Your task to perform on an android device: Go to wifi settings Image 0: 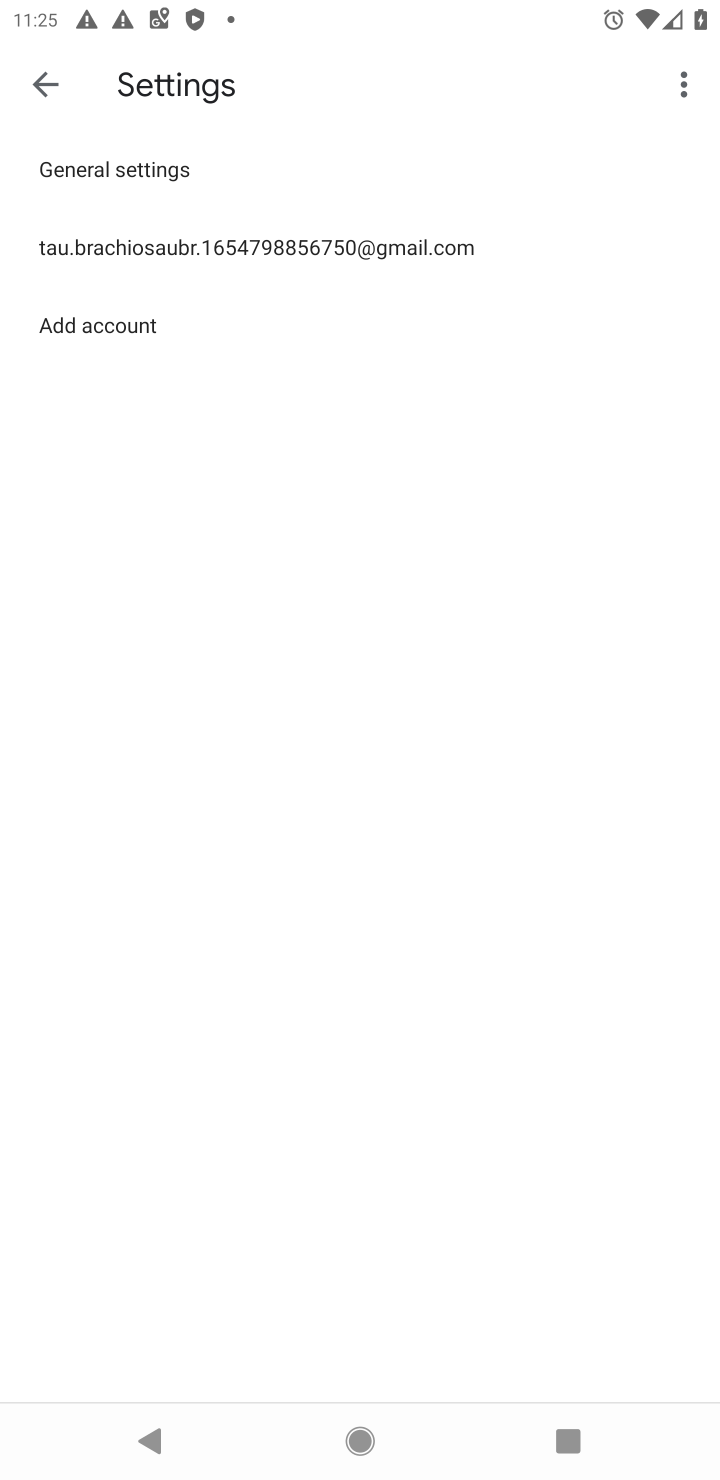
Step 0: press home button
Your task to perform on an android device: Go to wifi settings Image 1: 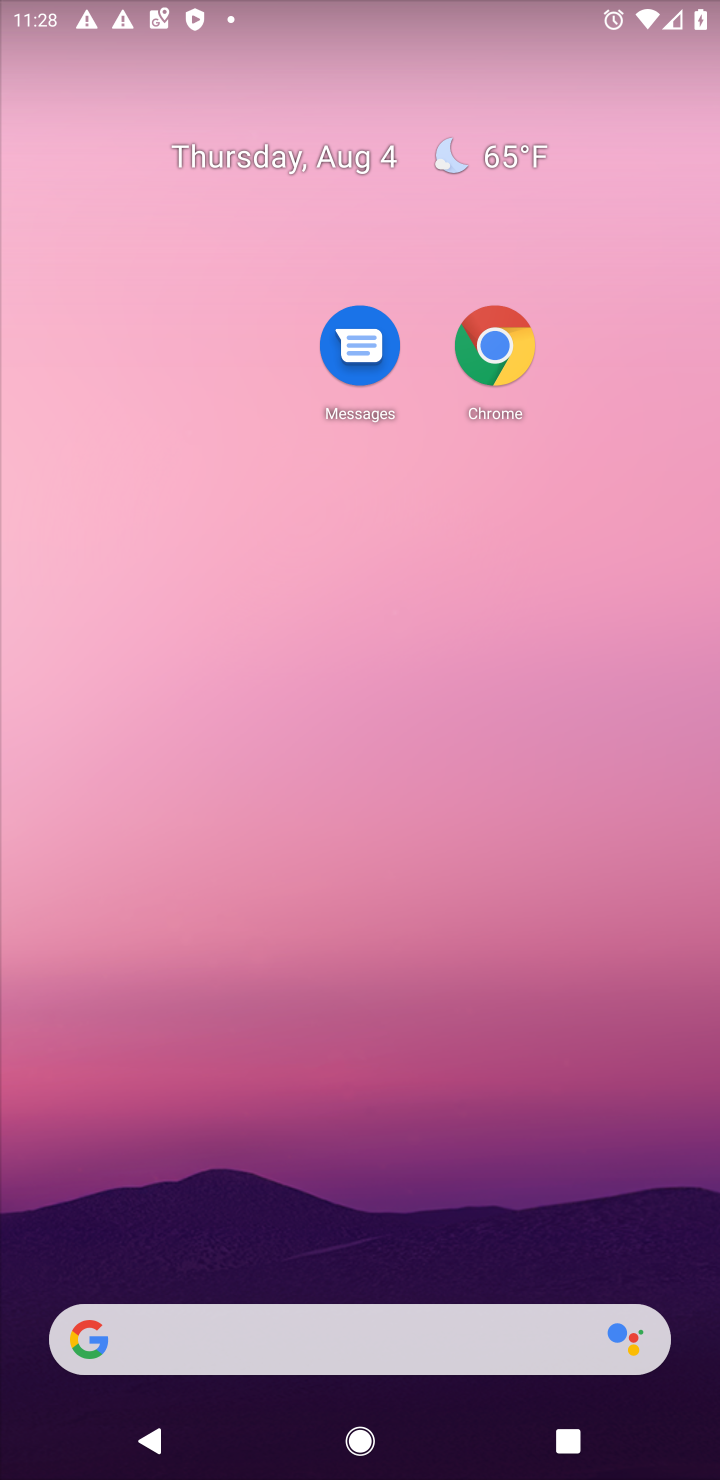
Step 1: drag from (292, 1154) to (352, 170)
Your task to perform on an android device: Go to wifi settings Image 2: 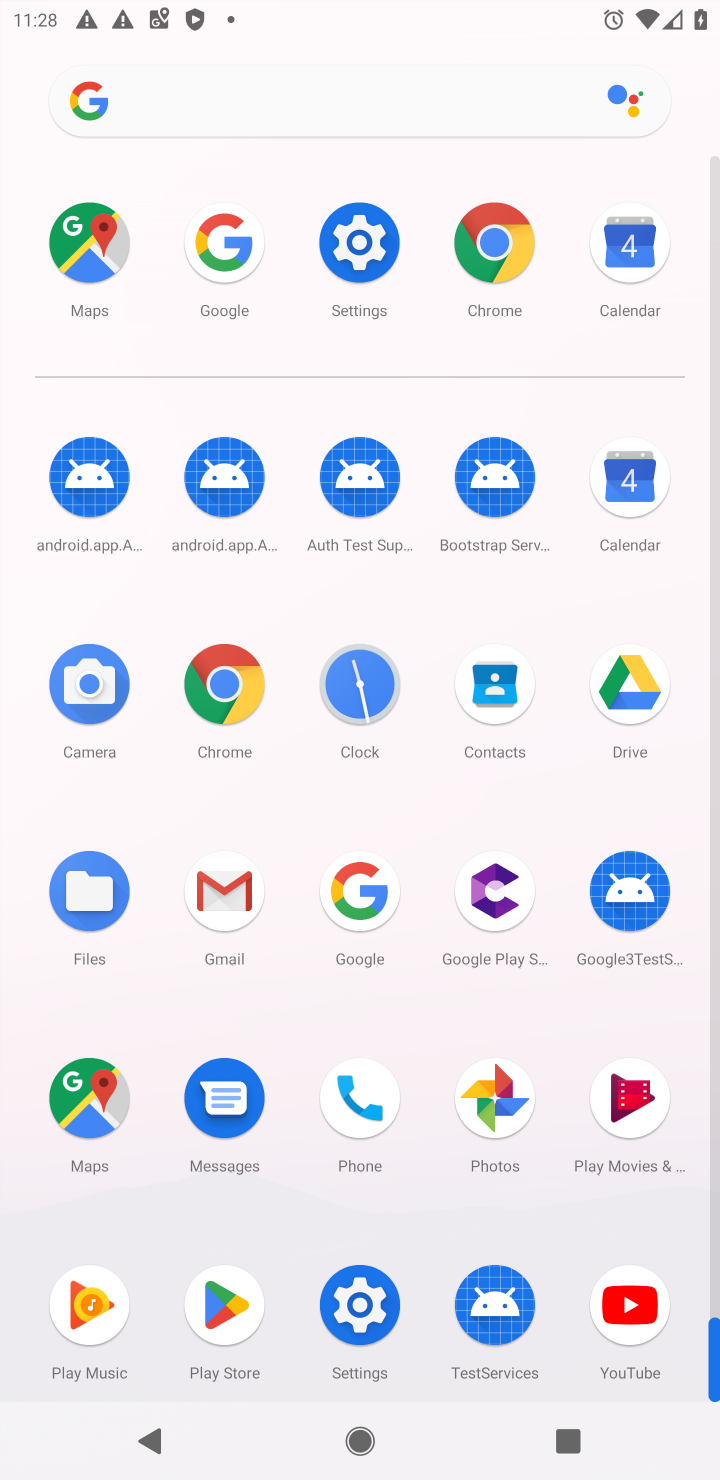
Step 2: click (361, 257)
Your task to perform on an android device: Go to wifi settings Image 3: 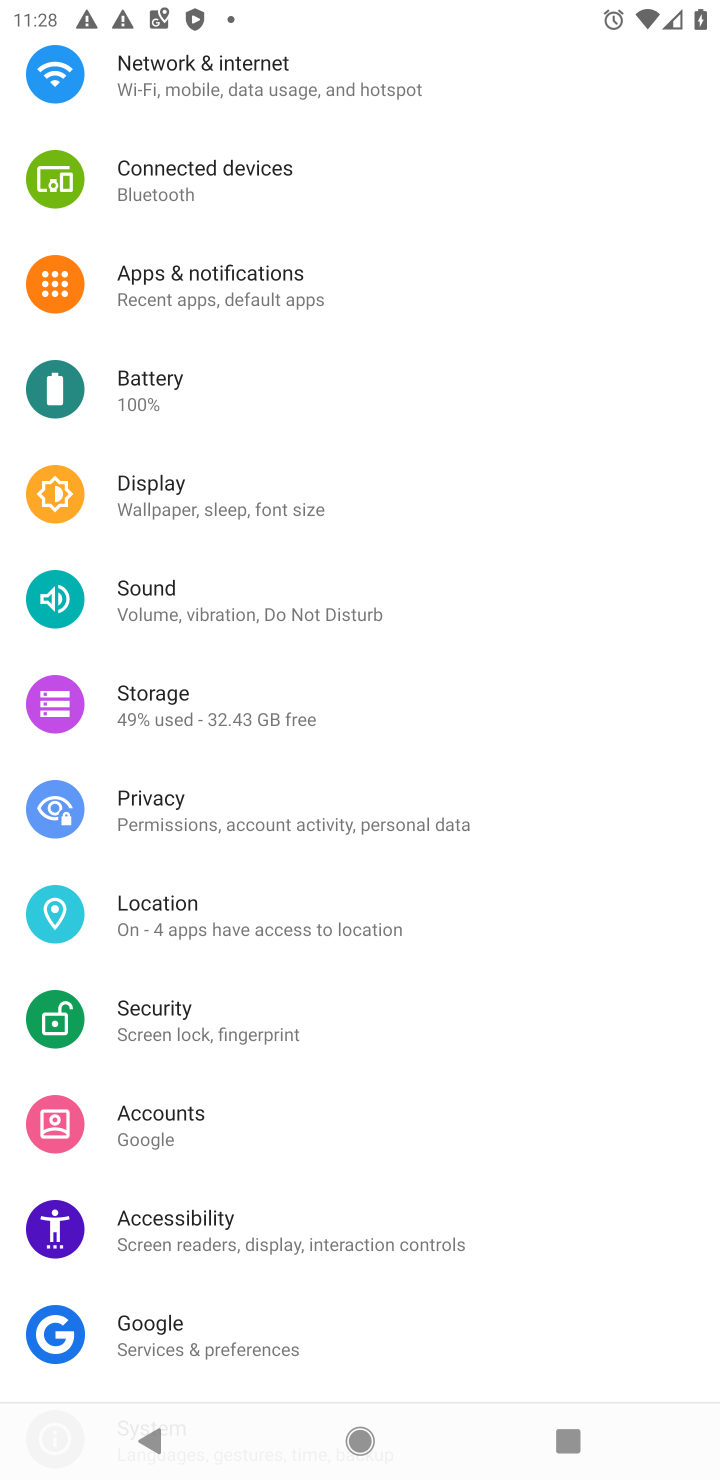
Step 3: drag from (372, 277) to (373, 1476)
Your task to perform on an android device: Go to wifi settings Image 4: 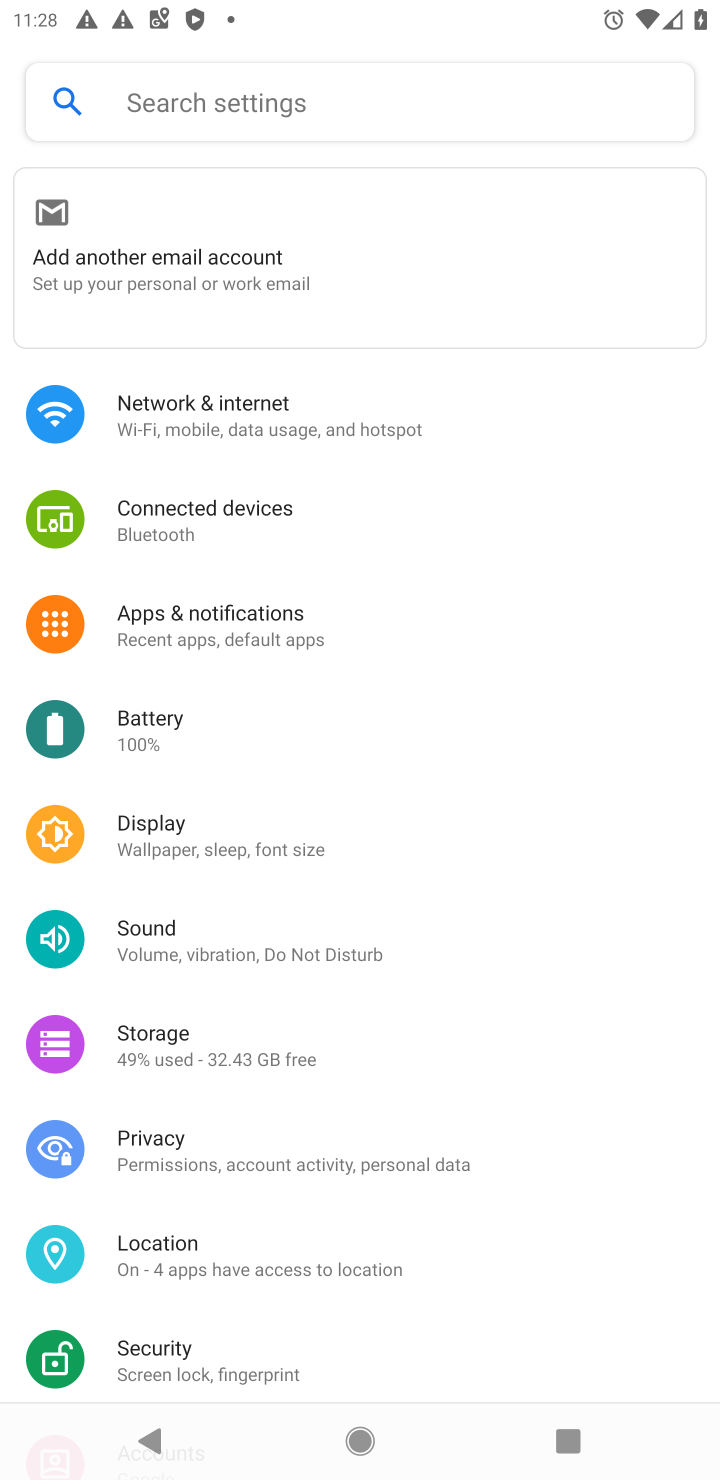
Step 4: click (151, 417)
Your task to perform on an android device: Go to wifi settings Image 5: 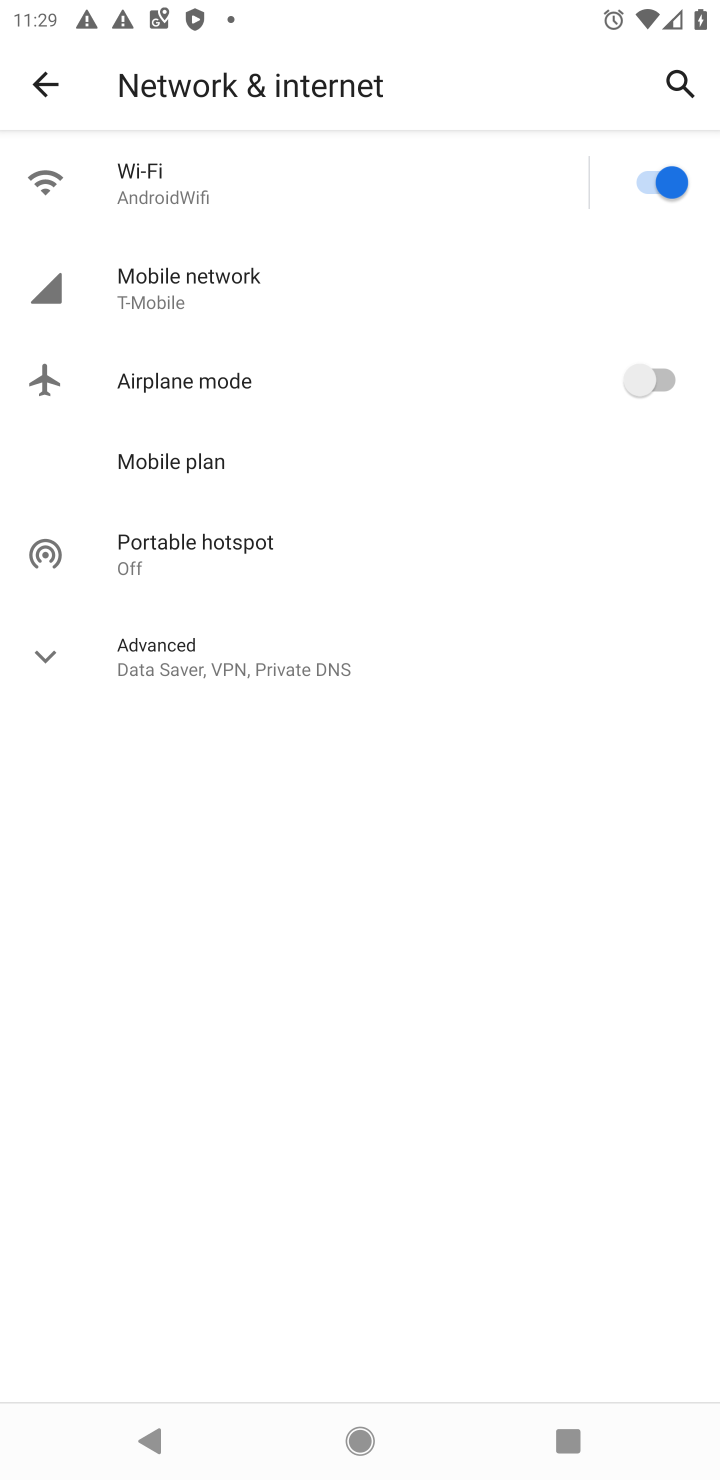
Step 5: click (192, 199)
Your task to perform on an android device: Go to wifi settings Image 6: 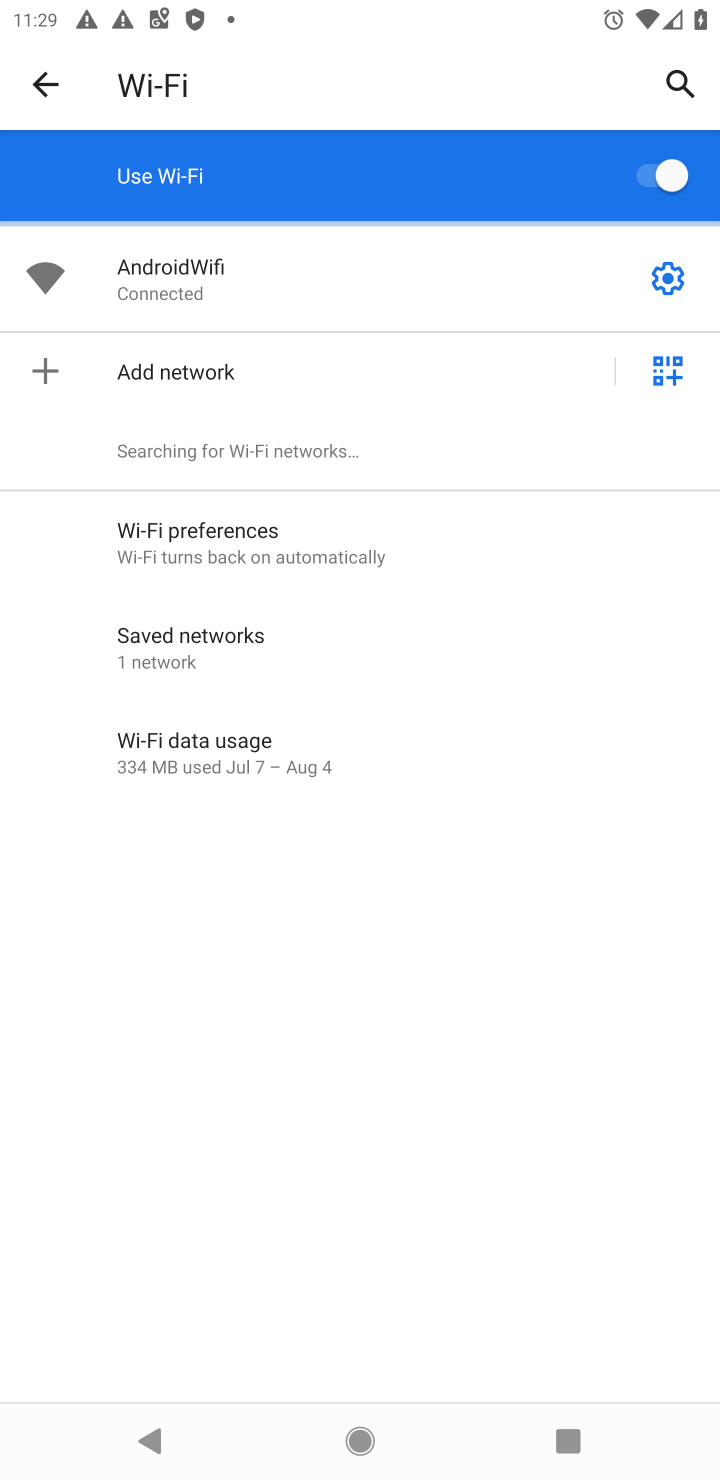
Step 6: task complete